Your task to perform on an android device: Go to network settings Image 0: 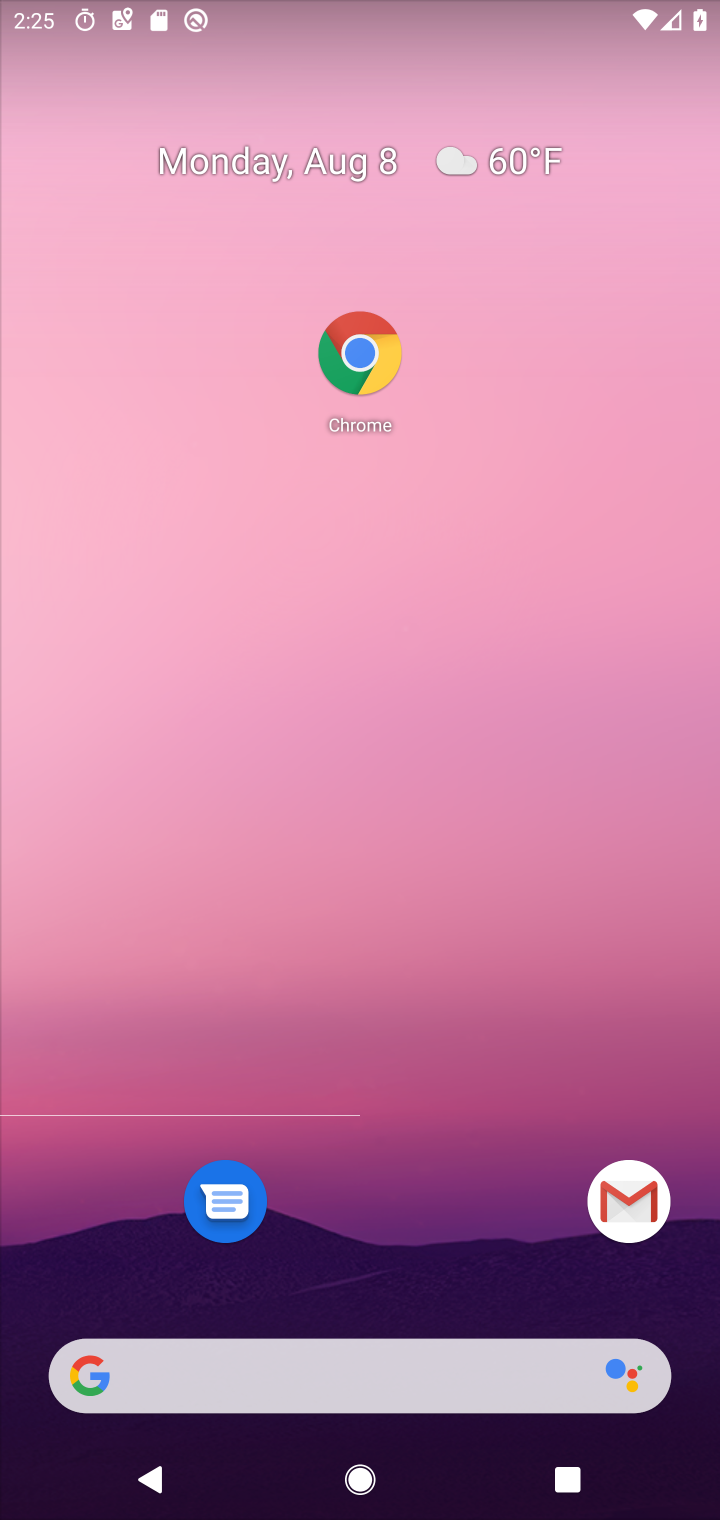
Step 0: press home button
Your task to perform on an android device: Go to network settings Image 1: 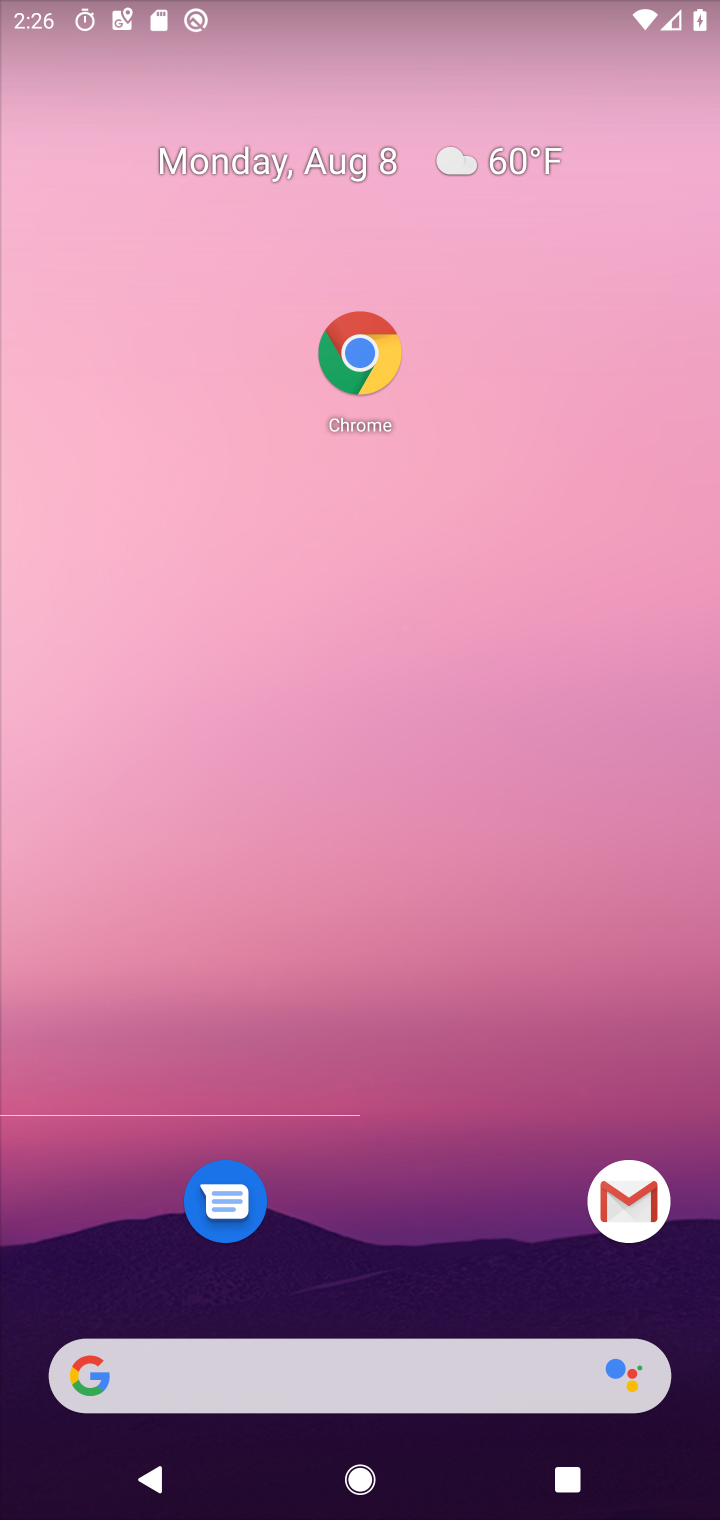
Step 1: drag from (444, 1421) to (548, 288)
Your task to perform on an android device: Go to network settings Image 2: 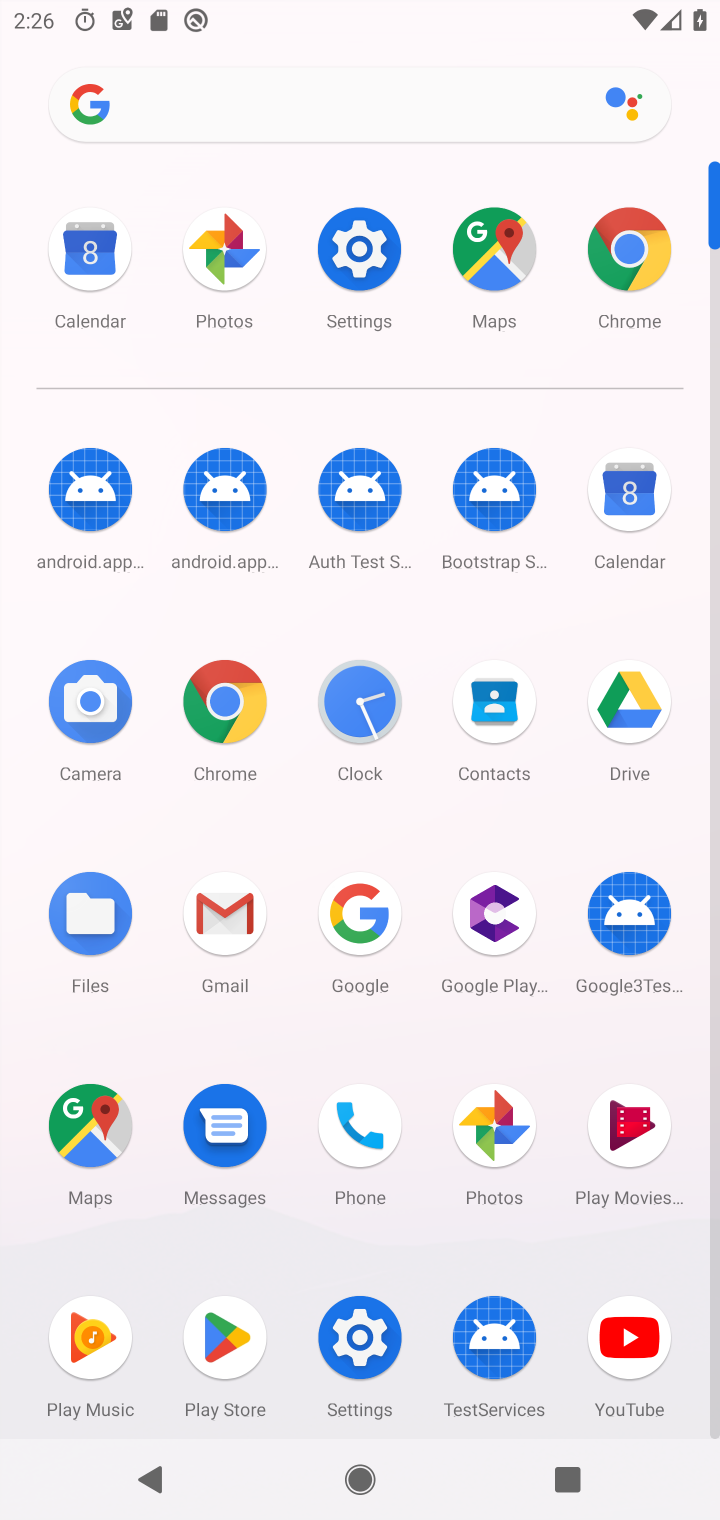
Step 2: click (371, 1337)
Your task to perform on an android device: Go to network settings Image 3: 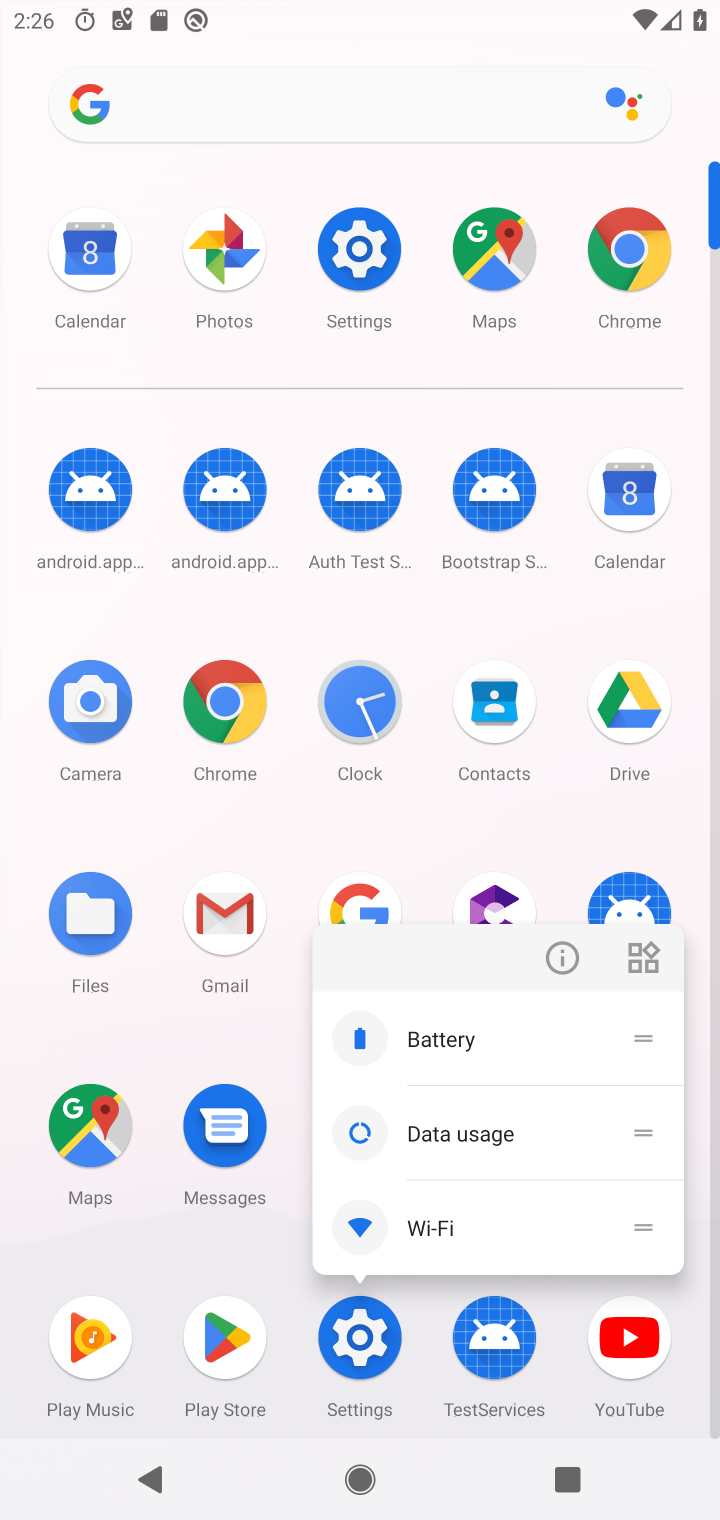
Step 3: click (342, 1353)
Your task to perform on an android device: Go to network settings Image 4: 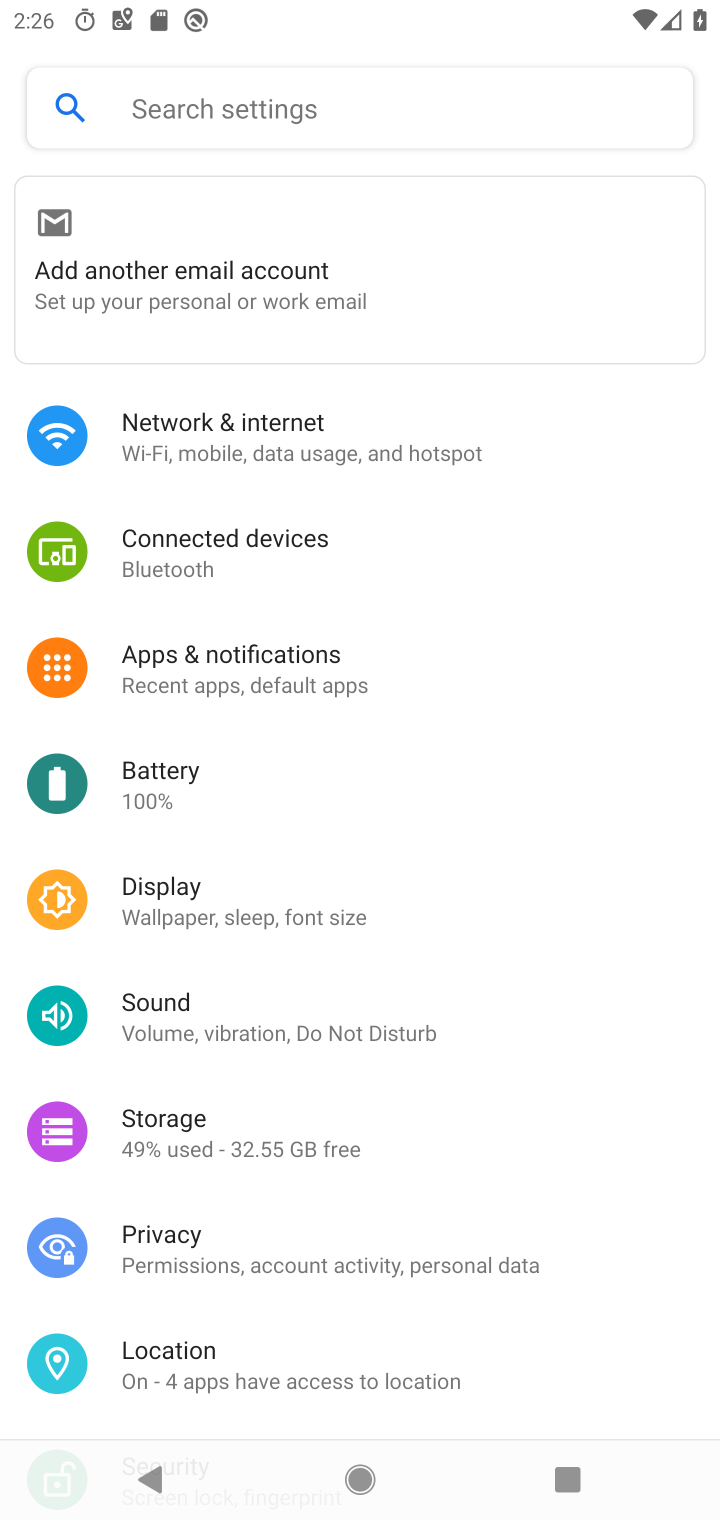
Step 4: click (241, 430)
Your task to perform on an android device: Go to network settings Image 5: 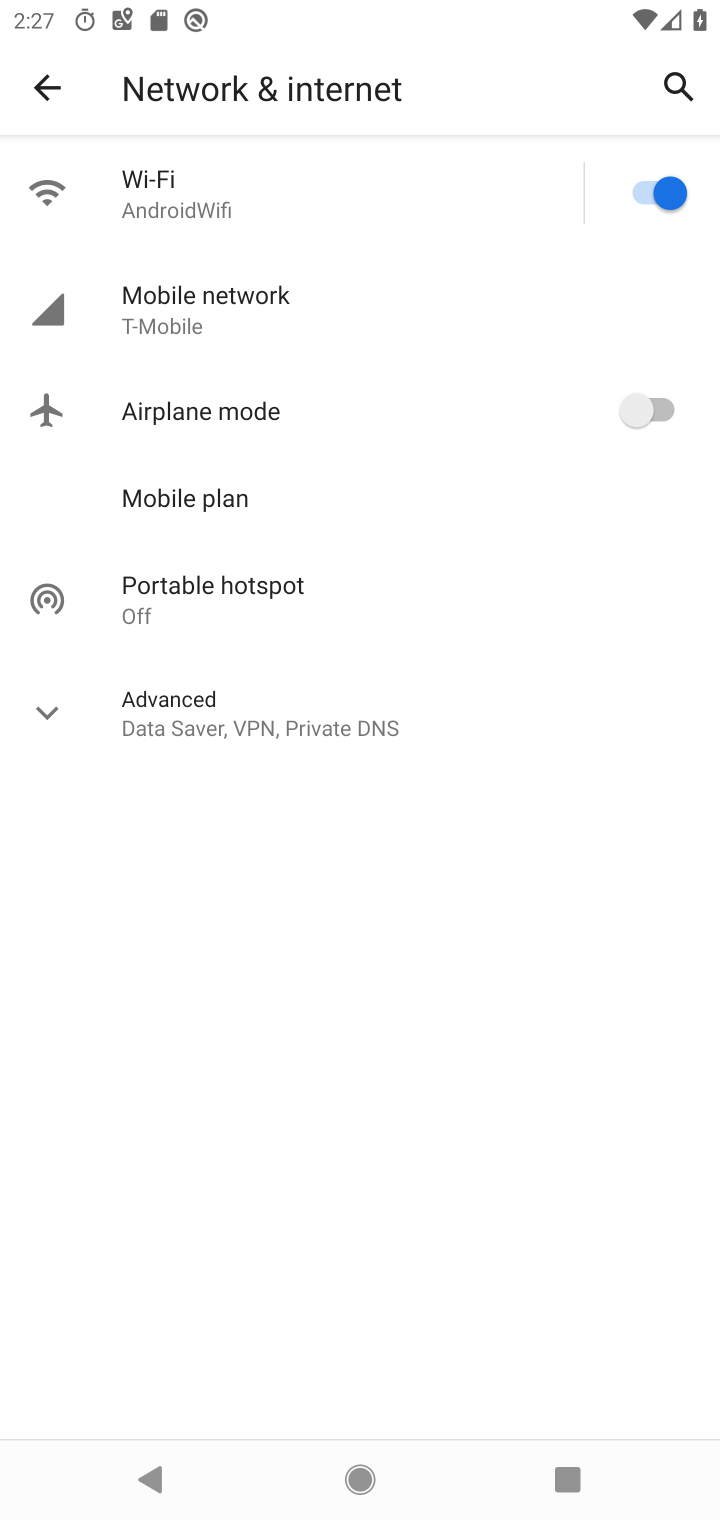
Step 5: task complete